Your task to perform on an android device: turn off picture-in-picture Image 0: 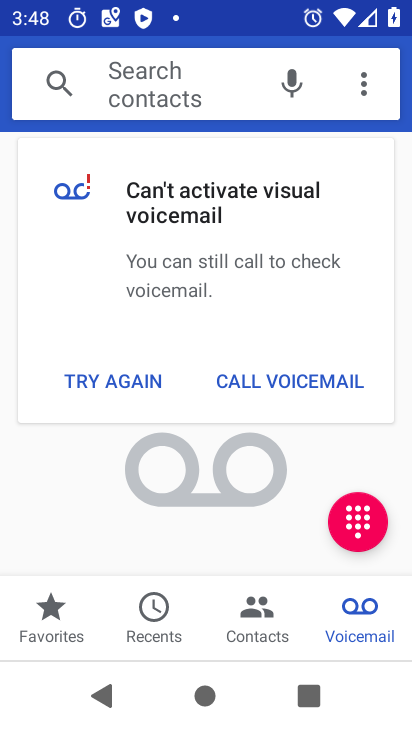
Step 0: press home button
Your task to perform on an android device: turn off picture-in-picture Image 1: 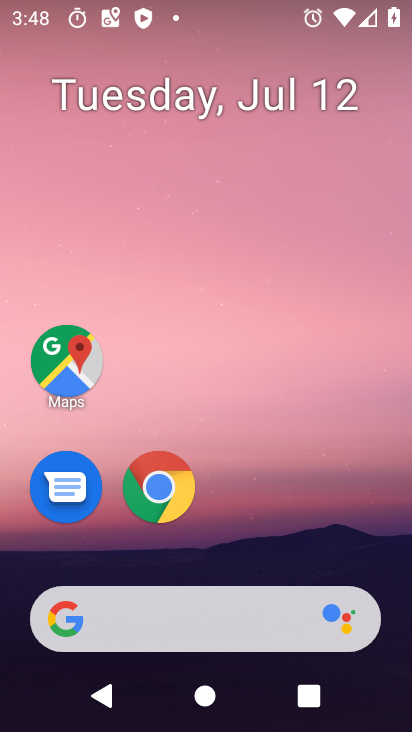
Step 1: click (148, 490)
Your task to perform on an android device: turn off picture-in-picture Image 2: 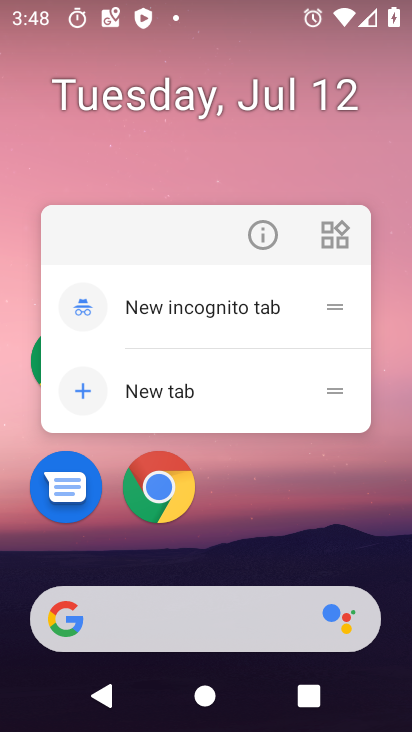
Step 2: click (267, 232)
Your task to perform on an android device: turn off picture-in-picture Image 3: 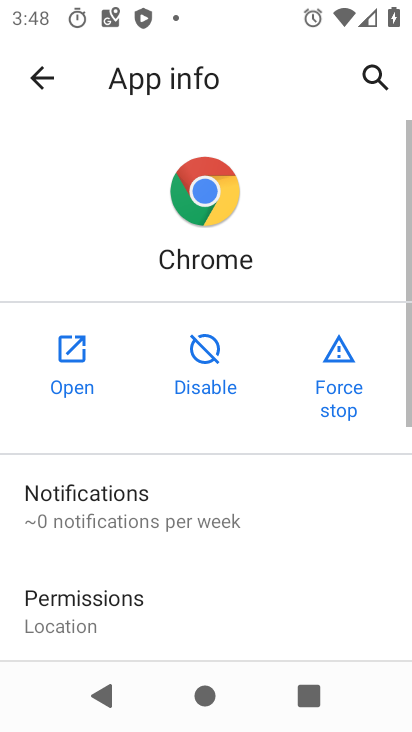
Step 3: drag from (141, 627) to (141, 288)
Your task to perform on an android device: turn off picture-in-picture Image 4: 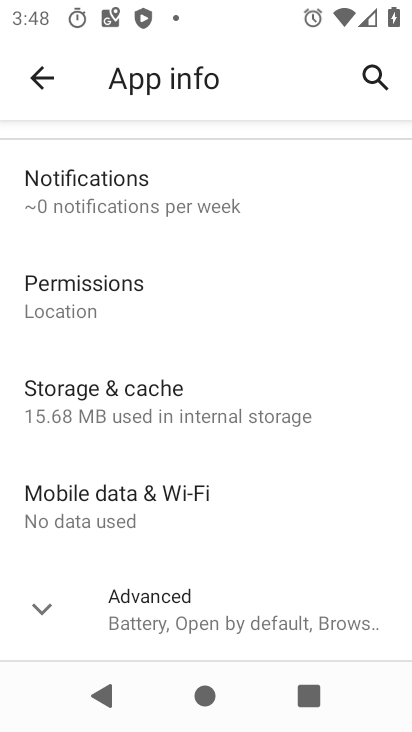
Step 4: click (129, 616)
Your task to perform on an android device: turn off picture-in-picture Image 5: 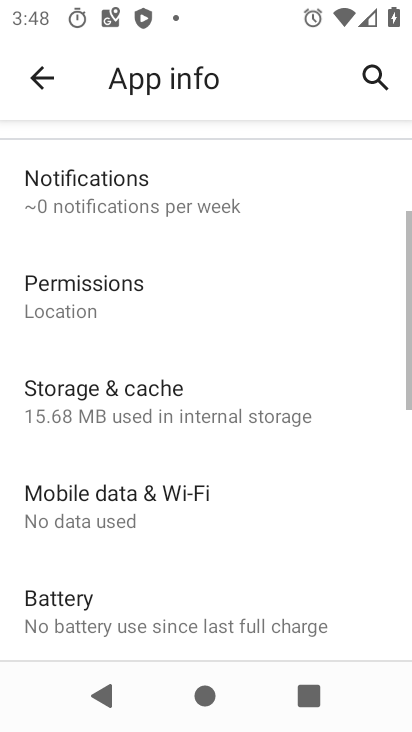
Step 5: drag from (225, 635) to (225, 312)
Your task to perform on an android device: turn off picture-in-picture Image 6: 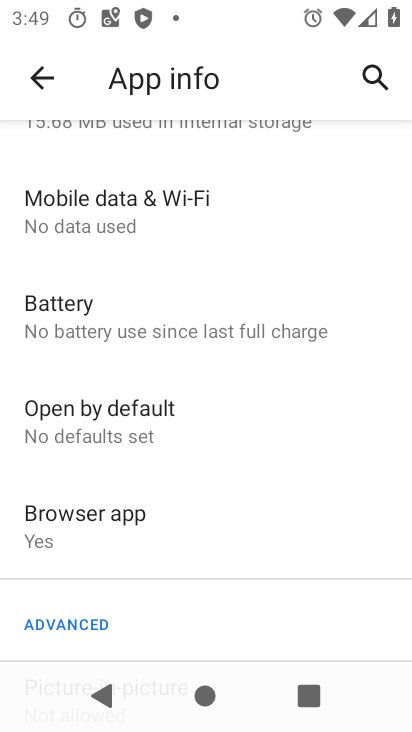
Step 6: drag from (106, 618) to (106, 330)
Your task to perform on an android device: turn off picture-in-picture Image 7: 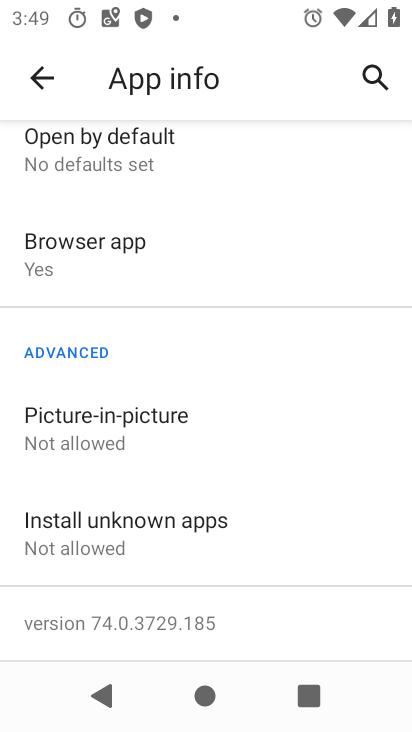
Step 7: click (113, 438)
Your task to perform on an android device: turn off picture-in-picture Image 8: 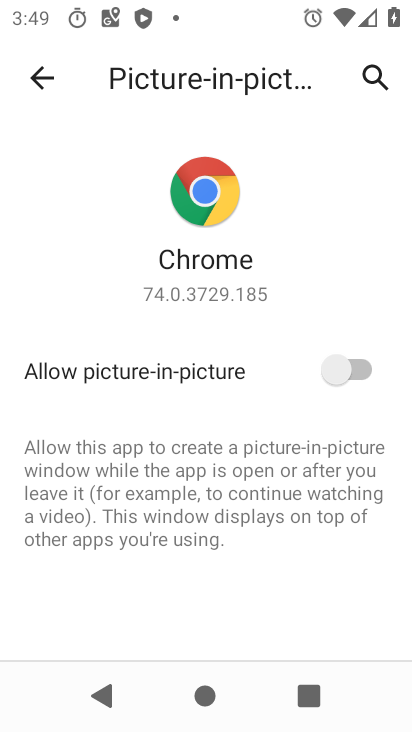
Step 8: task complete